Your task to perform on an android device: change notification settings in the gmail app Image 0: 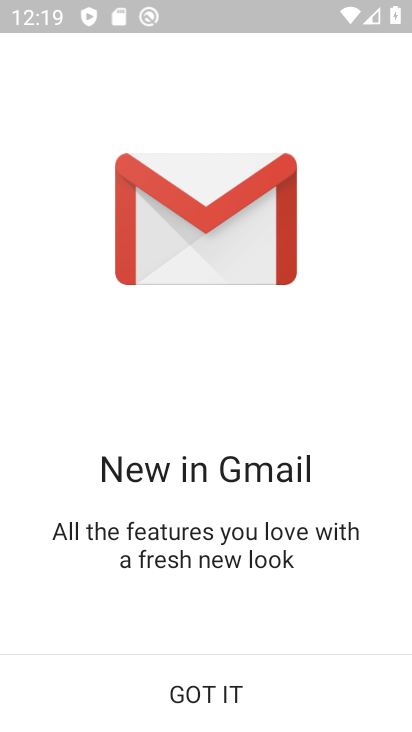
Step 0: click (225, 707)
Your task to perform on an android device: change notification settings in the gmail app Image 1: 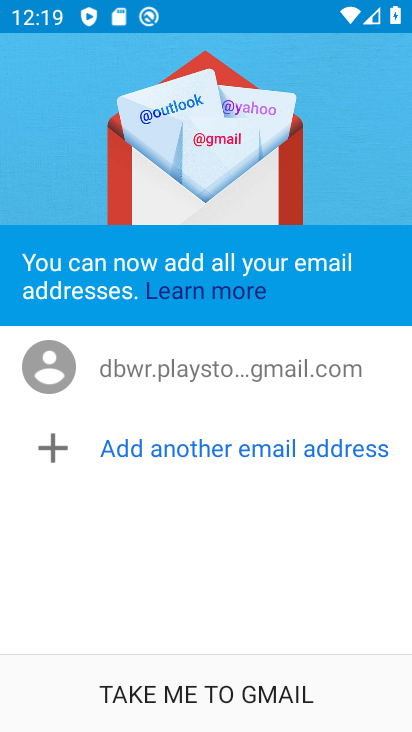
Step 1: click (242, 694)
Your task to perform on an android device: change notification settings in the gmail app Image 2: 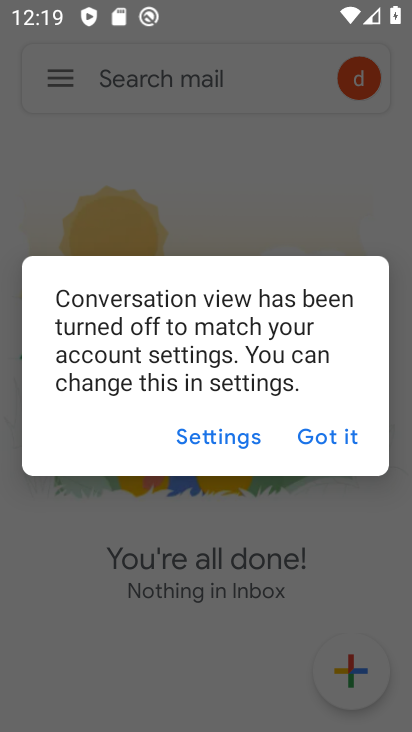
Step 2: click (353, 420)
Your task to perform on an android device: change notification settings in the gmail app Image 3: 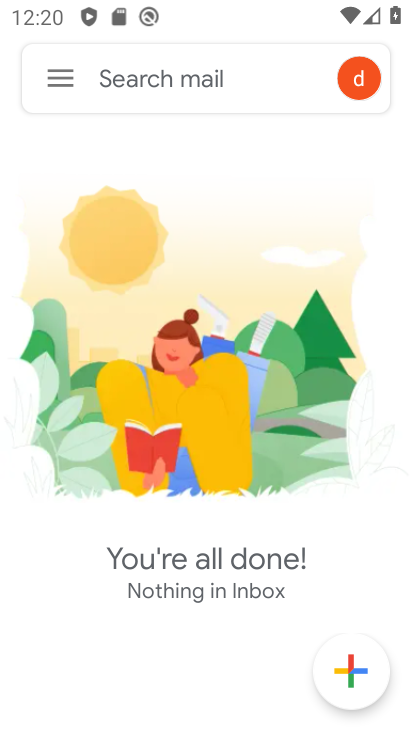
Step 3: click (84, 56)
Your task to perform on an android device: change notification settings in the gmail app Image 4: 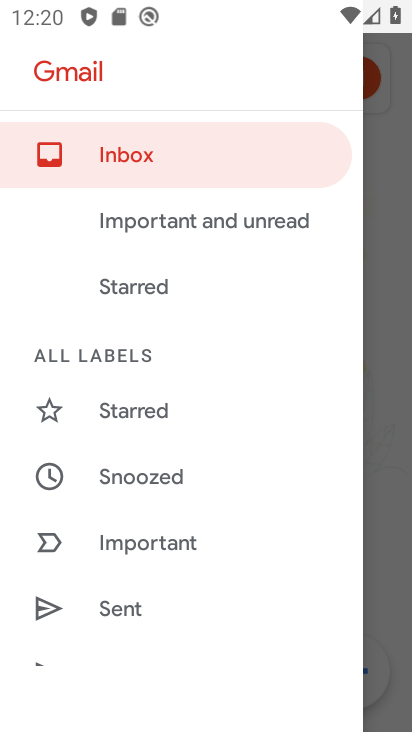
Step 4: drag from (158, 569) to (286, 87)
Your task to perform on an android device: change notification settings in the gmail app Image 5: 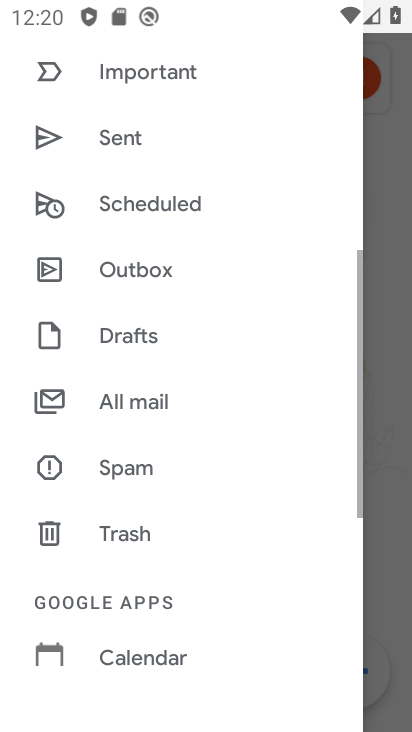
Step 5: drag from (227, 579) to (330, 84)
Your task to perform on an android device: change notification settings in the gmail app Image 6: 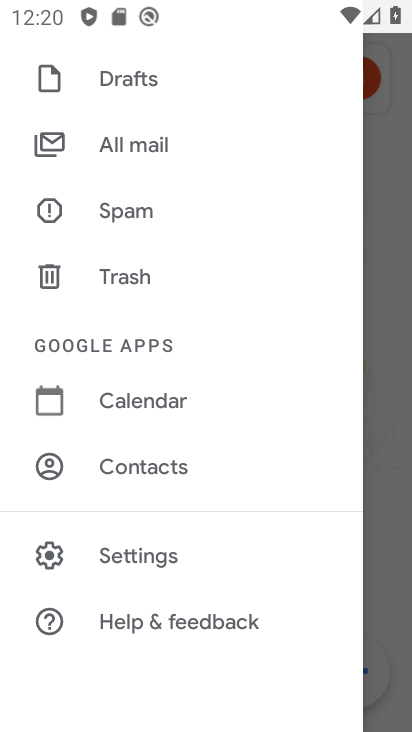
Step 6: click (198, 552)
Your task to perform on an android device: change notification settings in the gmail app Image 7: 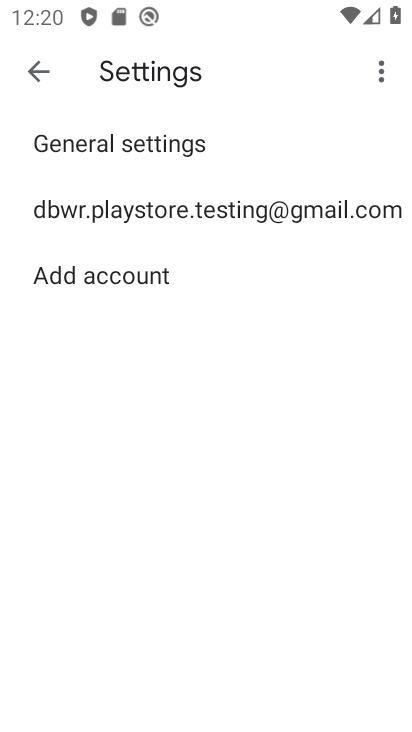
Step 7: click (286, 223)
Your task to perform on an android device: change notification settings in the gmail app Image 8: 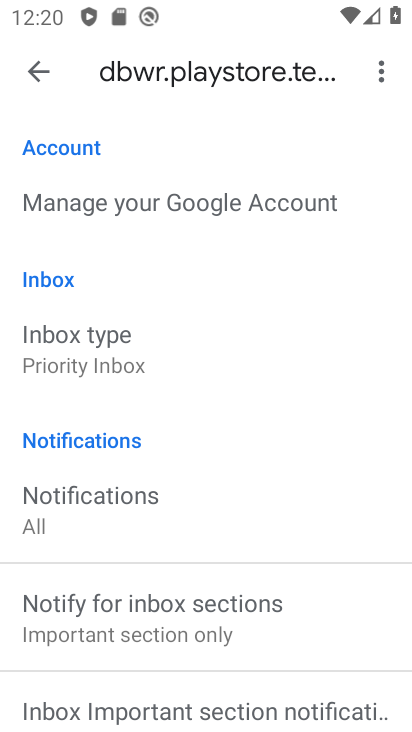
Step 8: drag from (225, 614) to (330, 239)
Your task to perform on an android device: change notification settings in the gmail app Image 9: 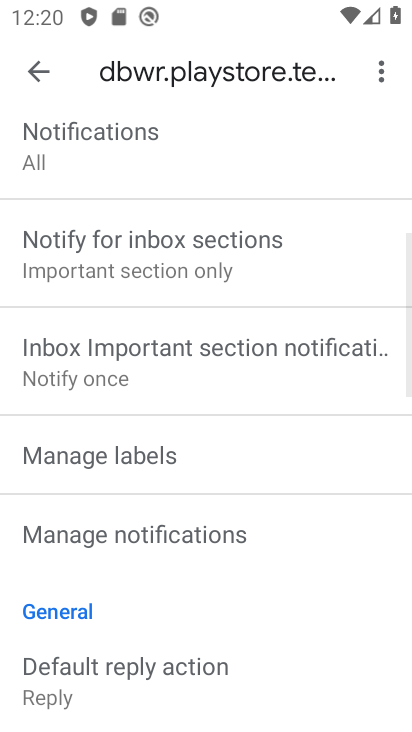
Step 9: click (214, 551)
Your task to perform on an android device: change notification settings in the gmail app Image 10: 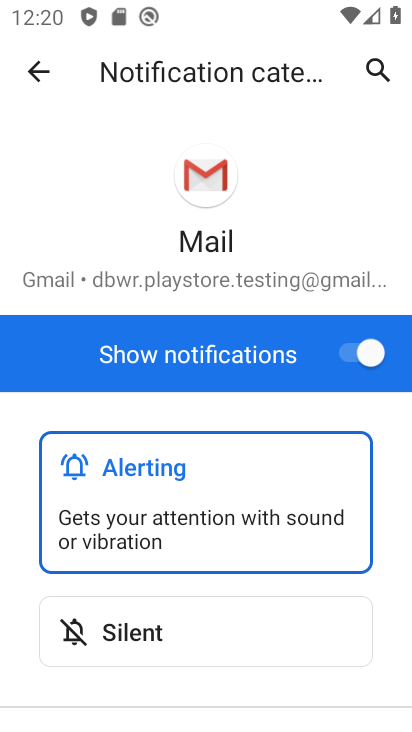
Step 10: drag from (257, 600) to (317, 405)
Your task to perform on an android device: change notification settings in the gmail app Image 11: 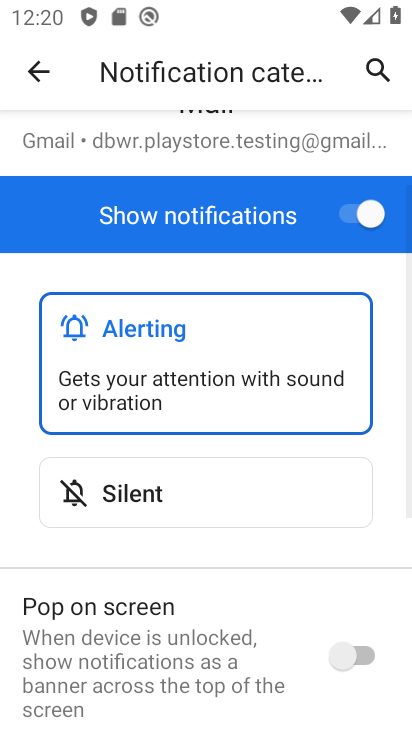
Step 11: click (223, 479)
Your task to perform on an android device: change notification settings in the gmail app Image 12: 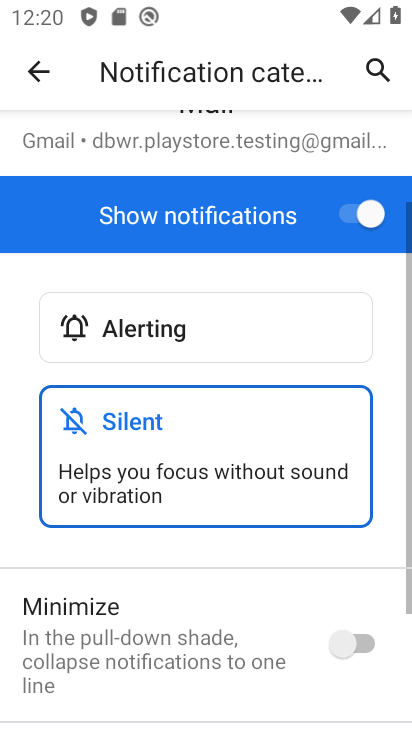
Step 12: click (371, 645)
Your task to perform on an android device: change notification settings in the gmail app Image 13: 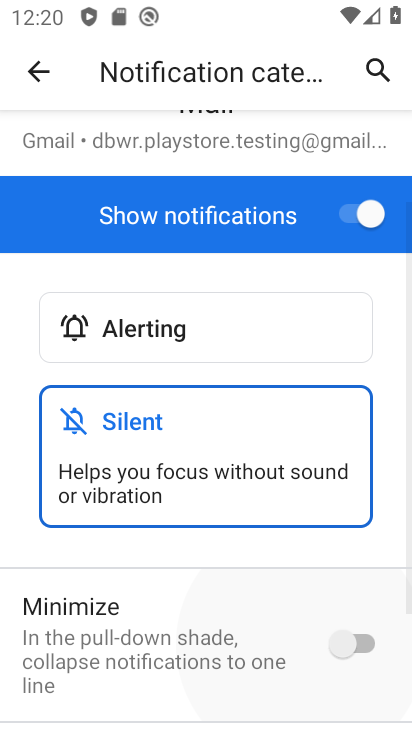
Step 13: task complete